Your task to perform on an android device: change text size in settings app Image 0: 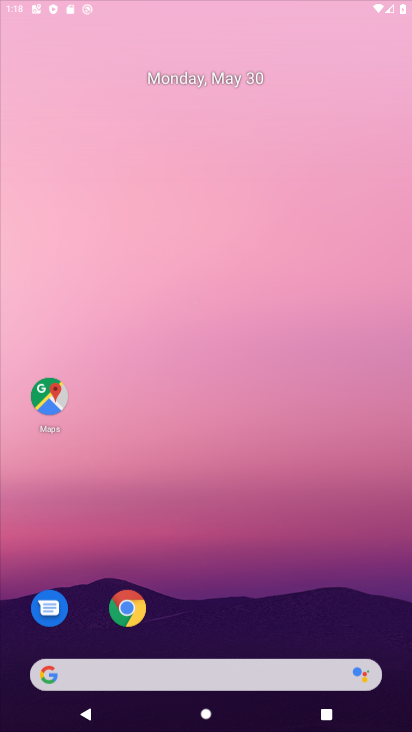
Step 0: drag from (203, 570) to (222, 251)
Your task to perform on an android device: change text size in settings app Image 1: 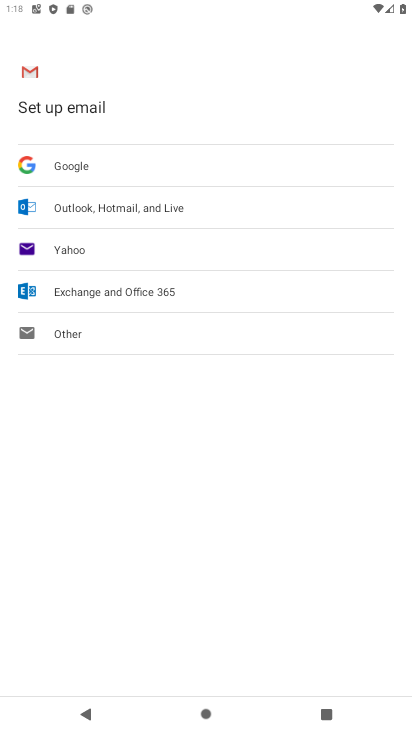
Step 1: press home button
Your task to perform on an android device: change text size in settings app Image 2: 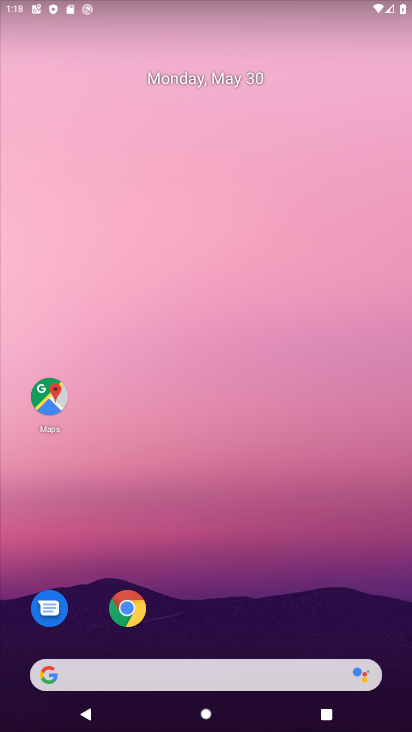
Step 2: drag from (239, 593) to (199, 292)
Your task to perform on an android device: change text size in settings app Image 3: 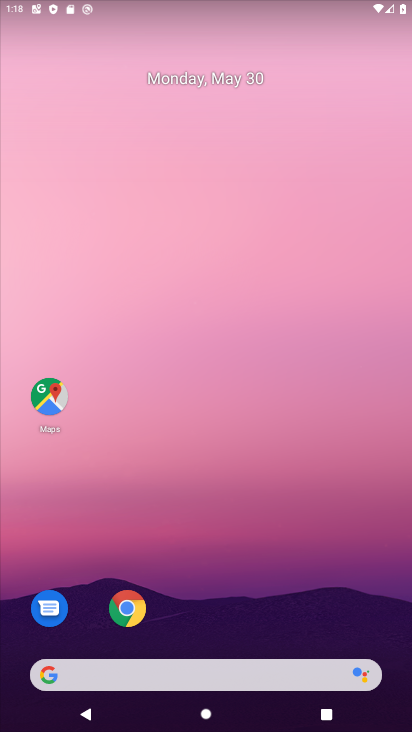
Step 3: drag from (219, 591) to (206, 225)
Your task to perform on an android device: change text size in settings app Image 4: 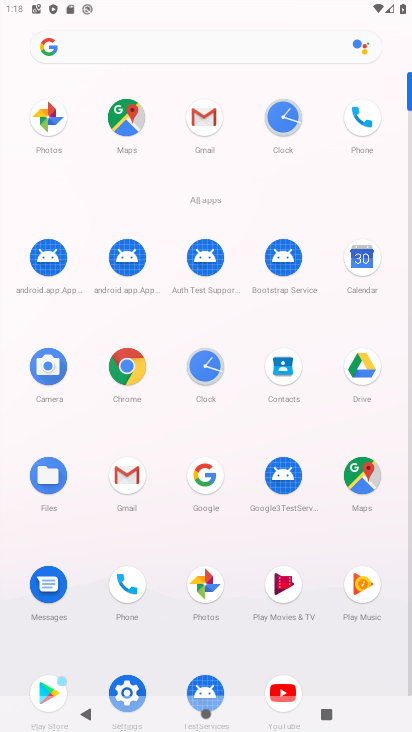
Step 4: click (127, 687)
Your task to perform on an android device: change text size in settings app Image 5: 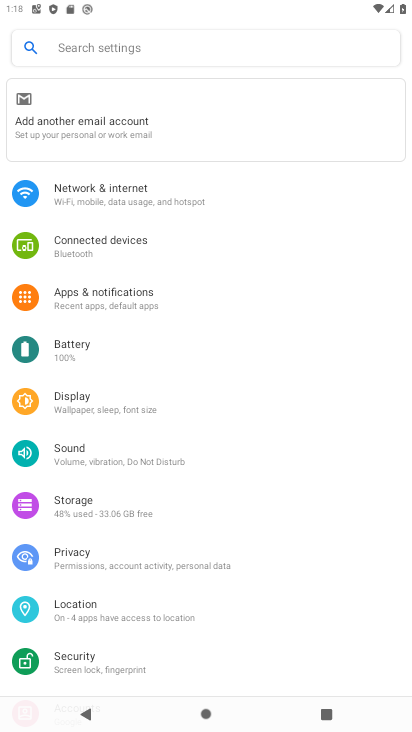
Step 5: click (105, 607)
Your task to perform on an android device: change text size in settings app Image 6: 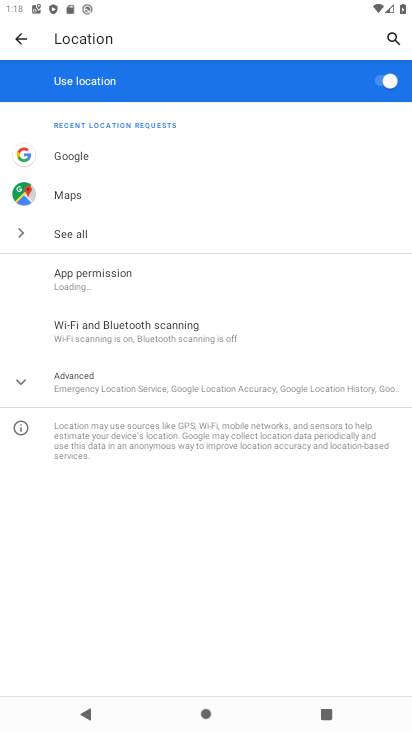
Step 6: click (17, 42)
Your task to perform on an android device: change text size in settings app Image 7: 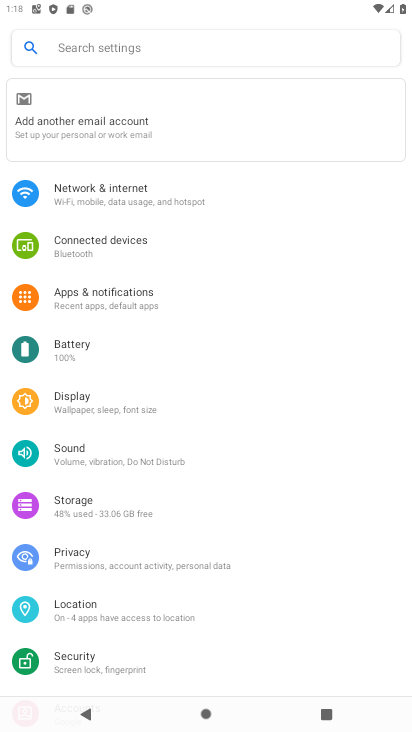
Step 7: drag from (216, 649) to (209, 358)
Your task to perform on an android device: change text size in settings app Image 8: 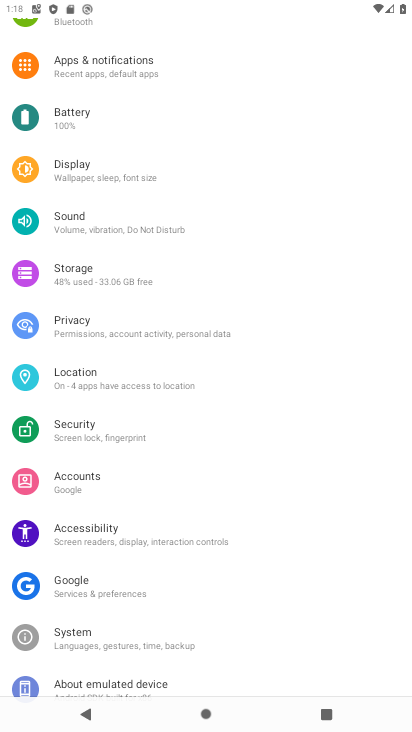
Step 8: click (130, 654)
Your task to perform on an android device: change text size in settings app Image 9: 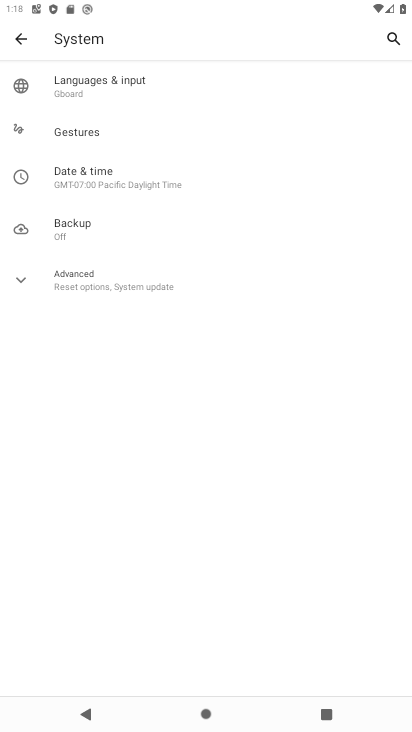
Step 9: click (21, 34)
Your task to perform on an android device: change text size in settings app Image 10: 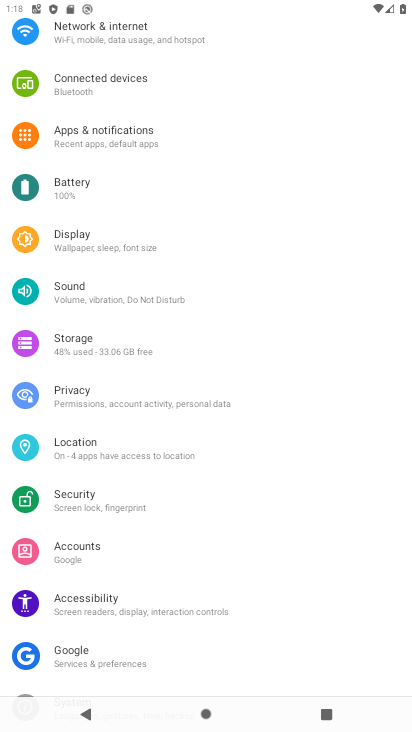
Step 10: drag from (201, 580) to (232, 319)
Your task to perform on an android device: change text size in settings app Image 11: 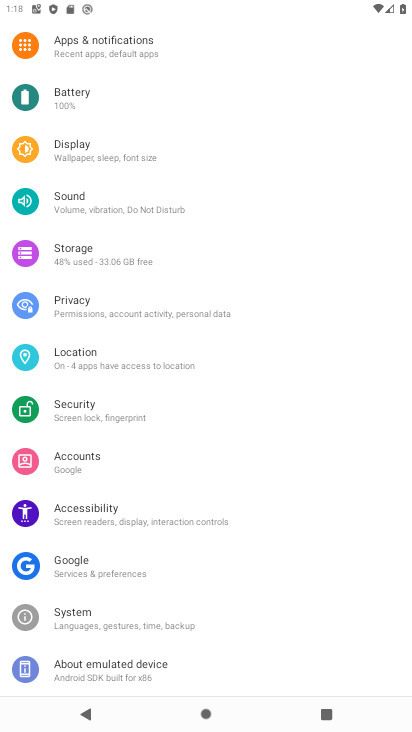
Step 11: click (112, 518)
Your task to perform on an android device: change text size in settings app Image 12: 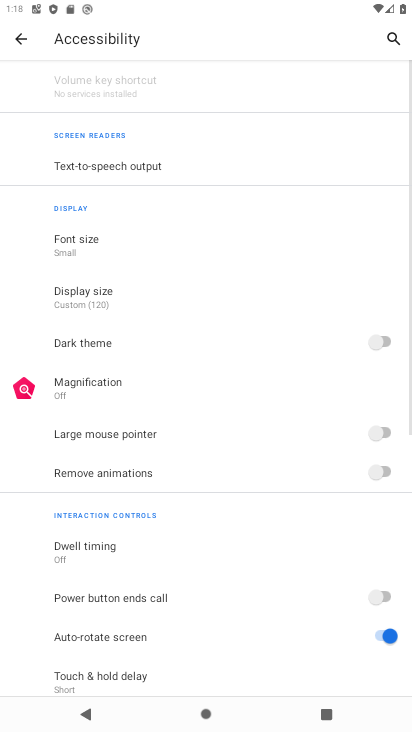
Step 12: click (114, 242)
Your task to perform on an android device: change text size in settings app Image 13: 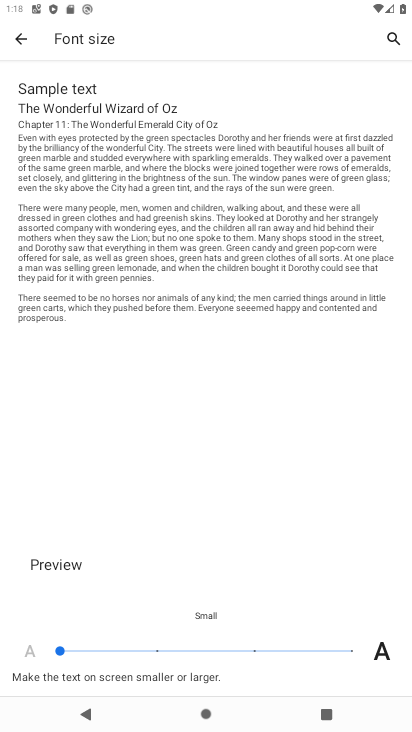
Step 13: click (256, 643)
Your task to perform on an android device: change text size in settings app Image 14: 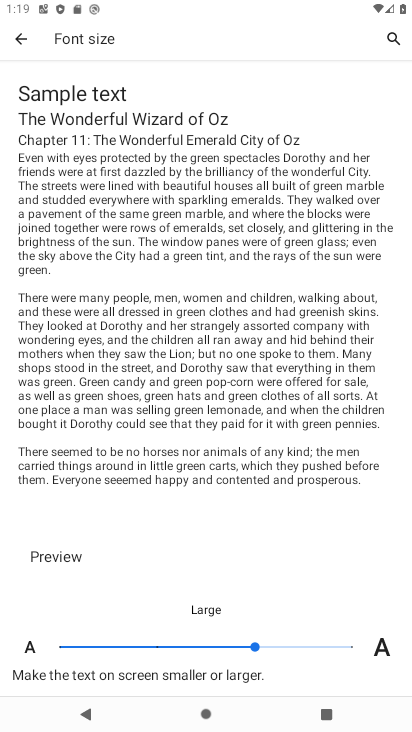
Step 14: task complete